Your task to perform on an android device: set the timer Image 0: 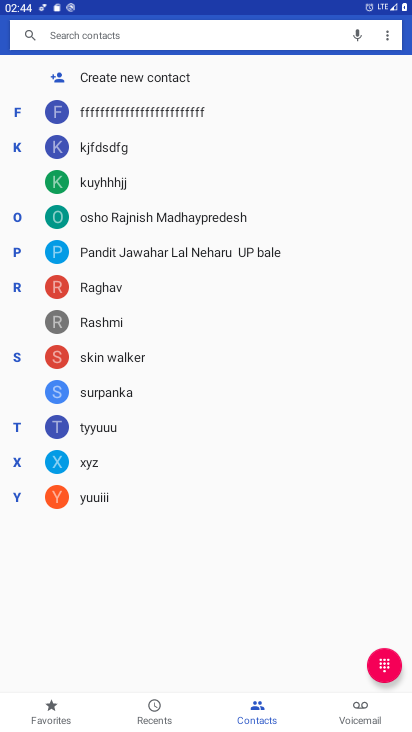
Step 0: press home button
Your task to perform on an android device: set the timer Image 1: 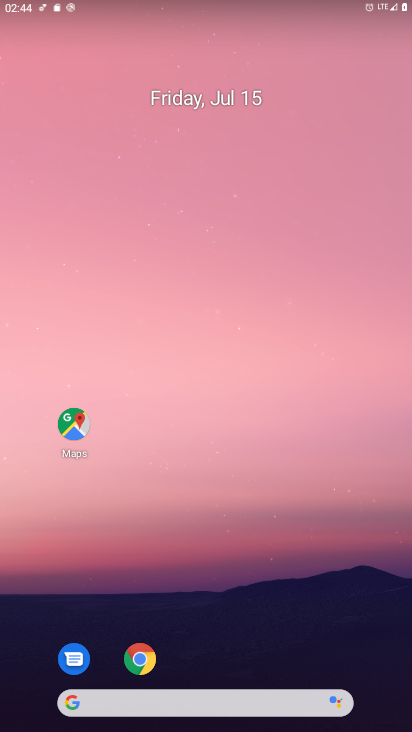
Step 1: drag from (162, 653) to (163, 194)
Your task to perform on an android device: set the timer Image 2: 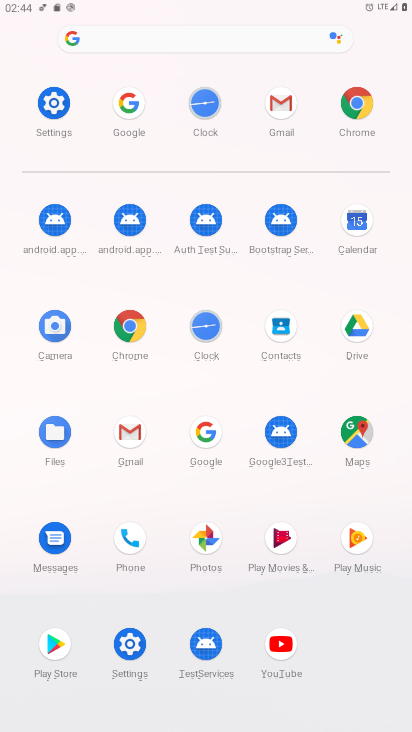
Step 2: click (200, 317)
Your task to perform on an android device: set the timer Image 3: 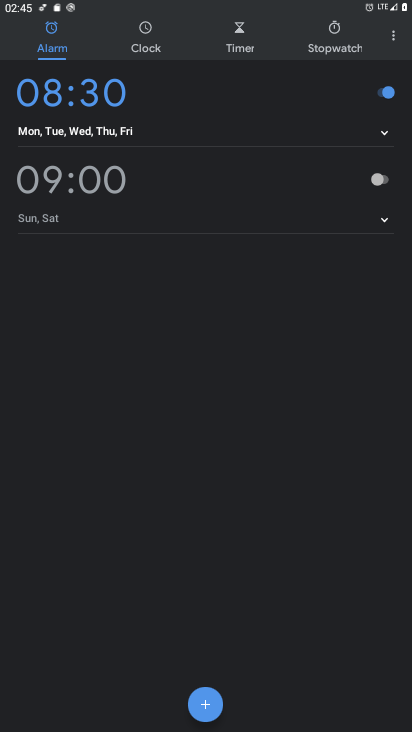
Step 3: click (224, 37)
Your task to perform on an android device: set the timer Image 4: 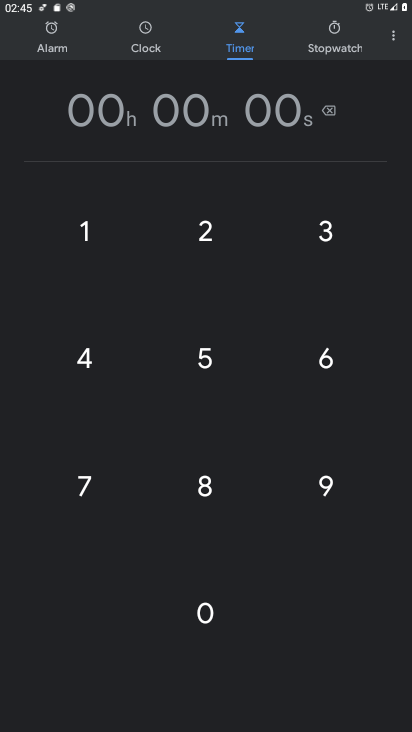
Step 4: click (293, 110)
Your task to perform on an android device: set the timer Image 5: 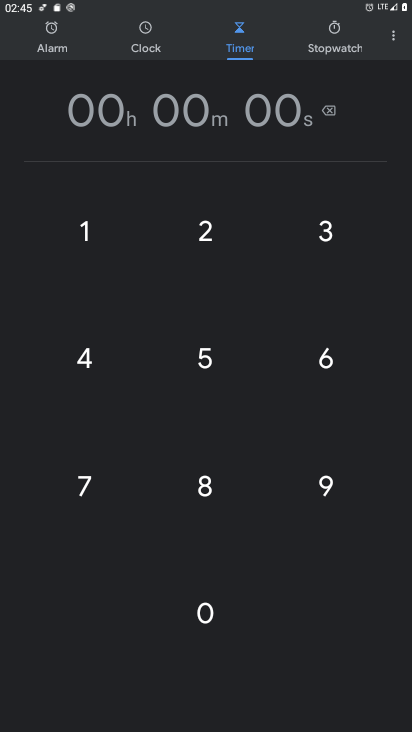
Step 5: type "9898989898989 "
Your task to perform on an android device: set the timer Image 6: 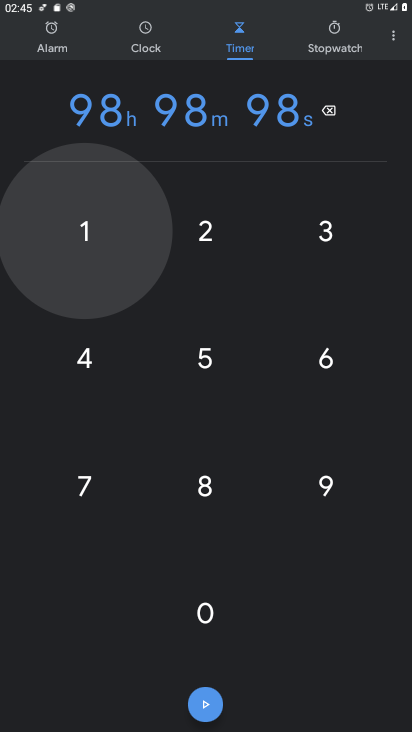
Step 6: click (211, 700)
Your task to perform on an android device: set the timer Image 7: 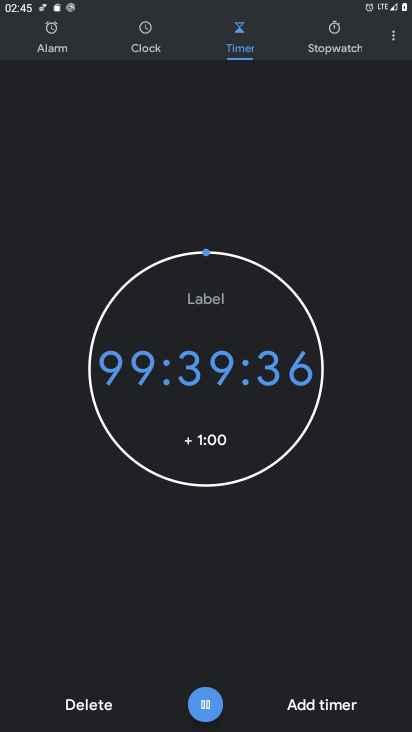
Step 7: click (209, 671)
Your task to perform on an android device: set the timer Image 8: 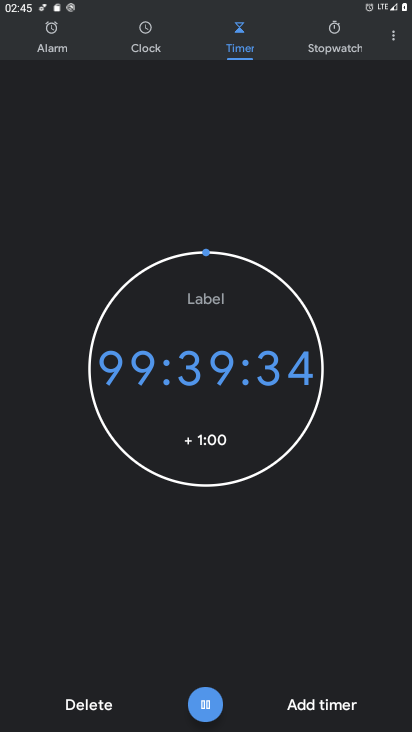
Step 8: task complete